Your task to perform on an android device: empty trash in google photos Image 0: 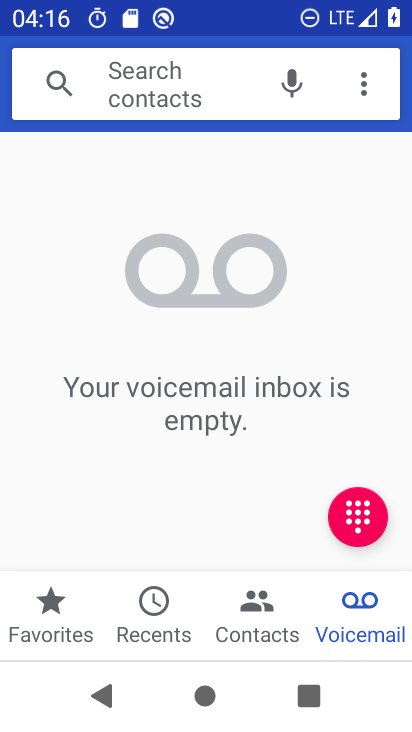
Step 0: press back button
Your task to perform on an android device: empty trash in google photos Image 1: 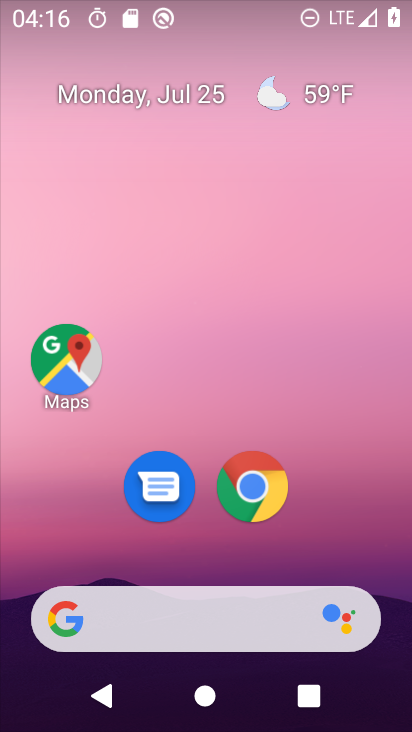
Step 1: drag from (238, 536) to (238, 43)
Your task to perform on an android device: empty trash in google photos Image 2: 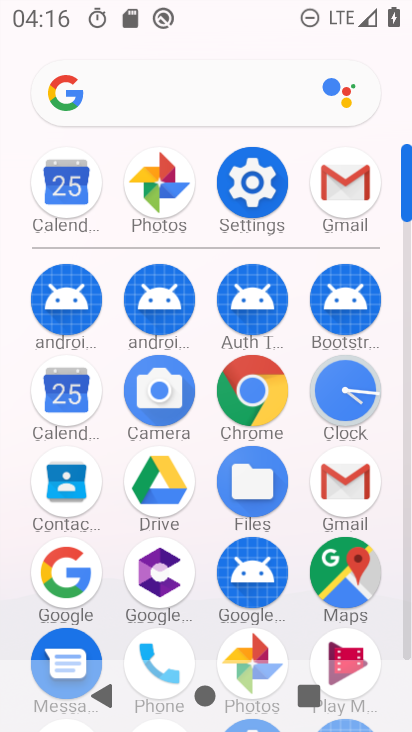
Step 2: click (247, 640)
Your task to perform on an android device: empty trash in google photos Image 3: 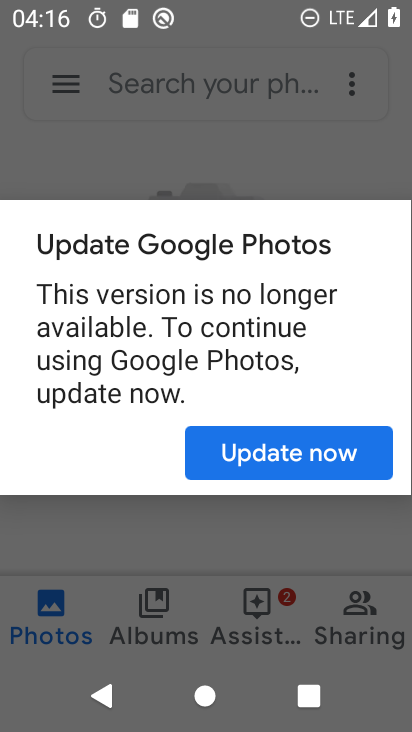
Step 3: click (322, 454)
Your task to perform on an android device: empty trash in google photos Image 4: 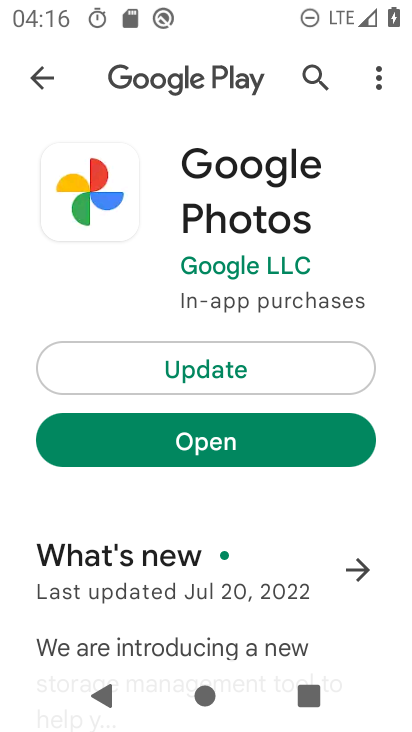
Step 4: press back button
Your task to perform on an android device: empty trash in google photos Image 5: 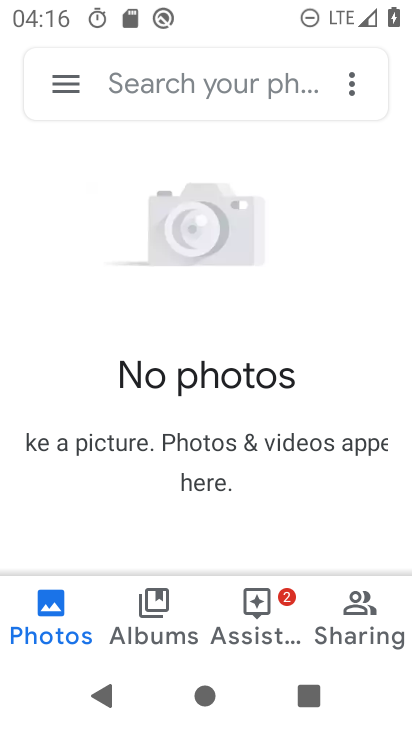
Step 5: click (68, 85)
Your task to perform on an android device: empty trash in google photos Image 6: 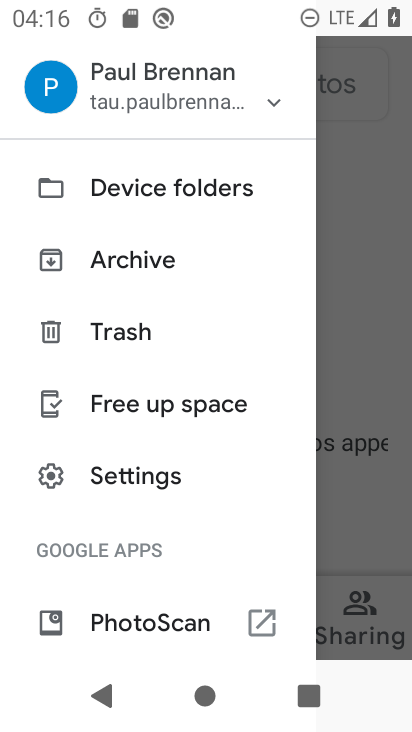
Step 6: click (123, 313)
Your task to perform on an android device: empty trash in google photos Image 7: 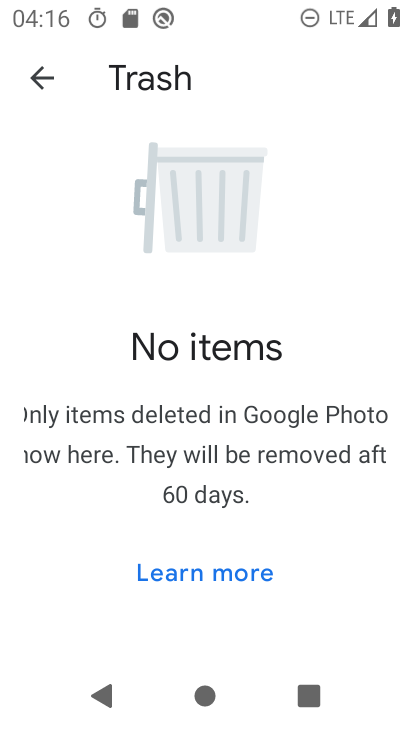
Step 7: task complete